Your task to perform on an android device: all mails in gmail Image 0: 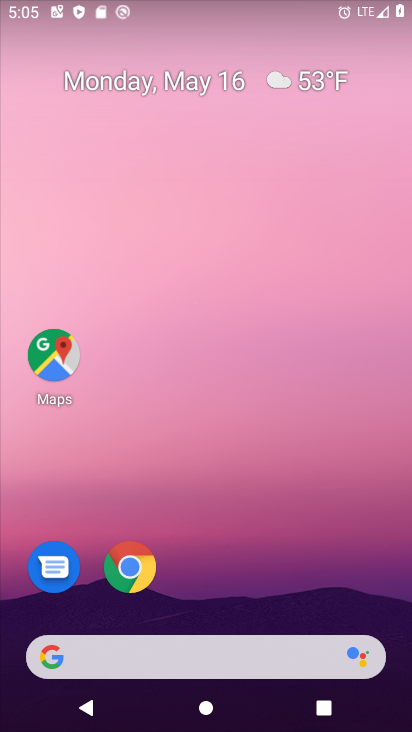
Step 0: drag from (298, 647) to (404, 37)
Your task to perform on an android device: all mails in gmail Image 1: 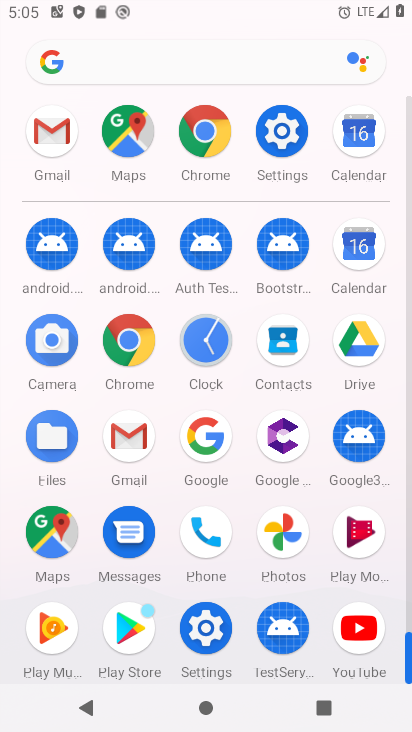
Step 1: click (143, 444)
Your task to perform on an android device: all mails in gmail Image 2: 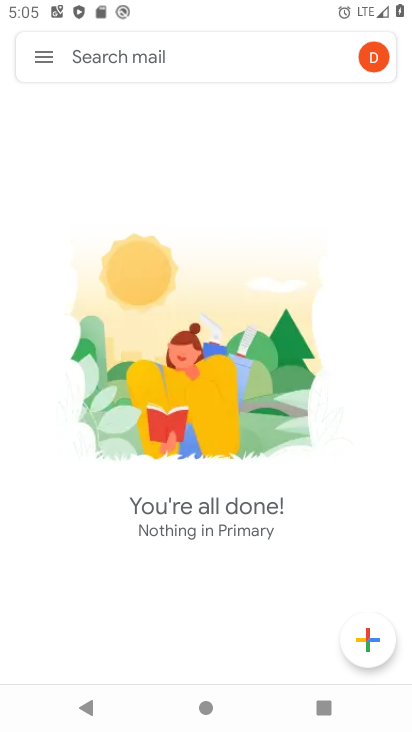
Step 2: click (30, 57)
Your task to perform on an android device: all mails in gmail Image 3: 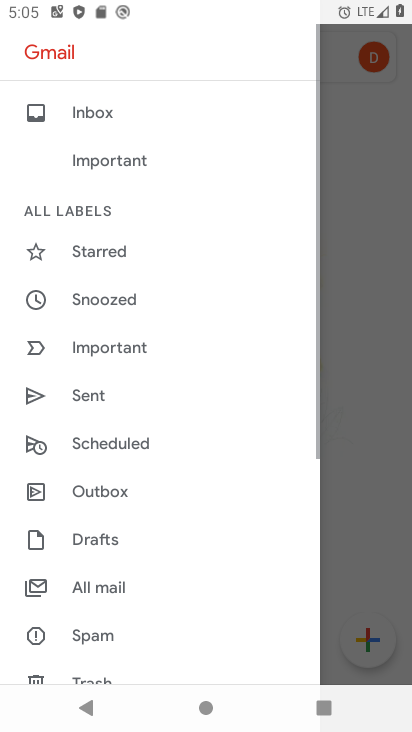
Step 3: drag from (186, 581) to (222, 161)
Your task to perform on an android device: all mails in gmail Image 4: 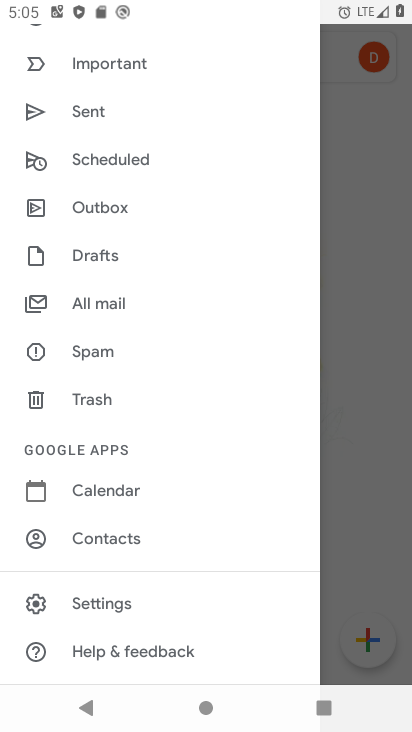
Step 4: click (103, 302)
Your task to perform on an android device: all mails in gmail Image 5: 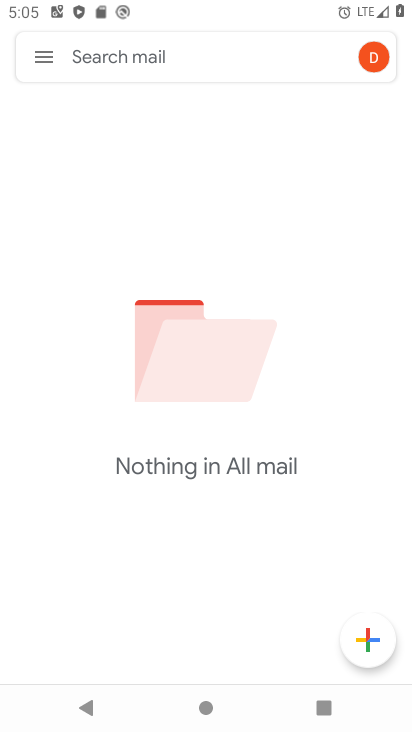
Step 5: task complete